Your task to perform on an android device: turn on translation in the chrome app Image 0: 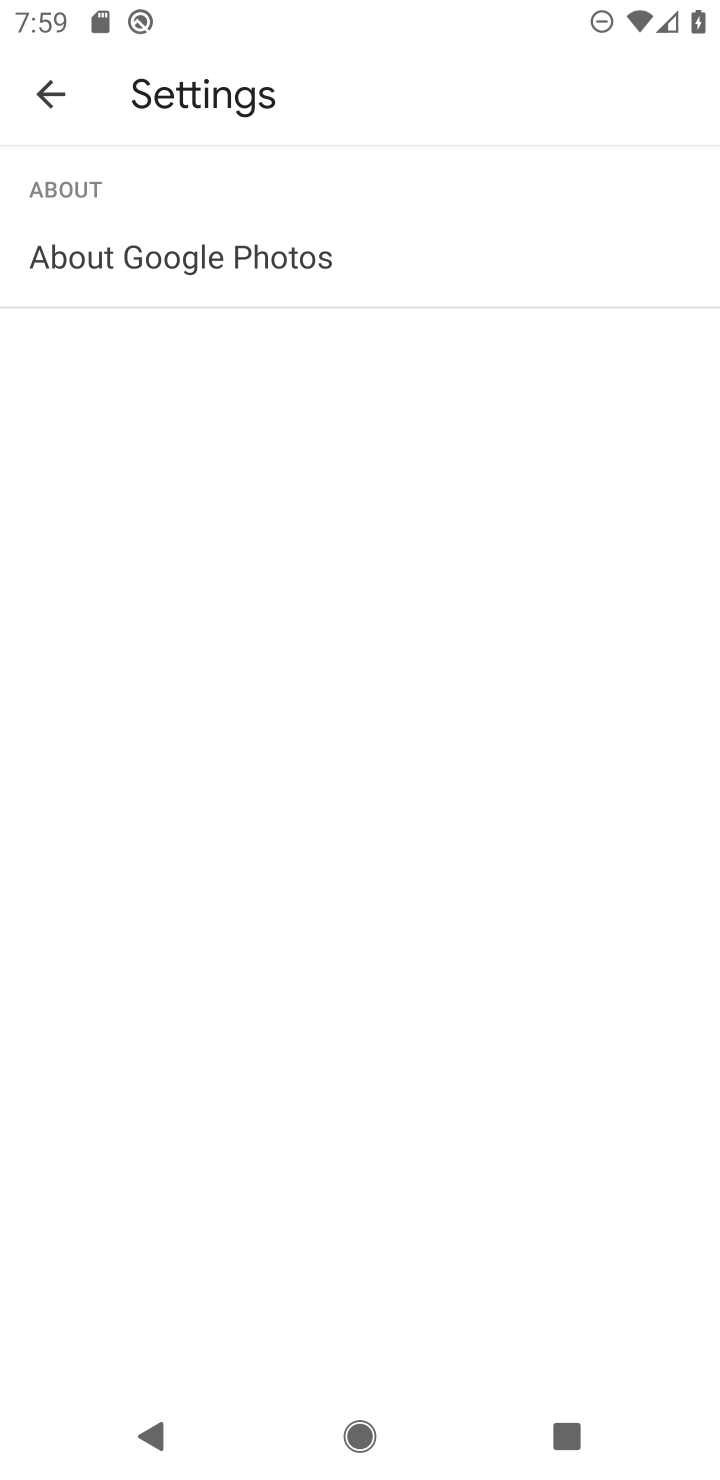
Step 0: press home button
Your task to perform on an android device: turn on translation in the chrome app Image 1: 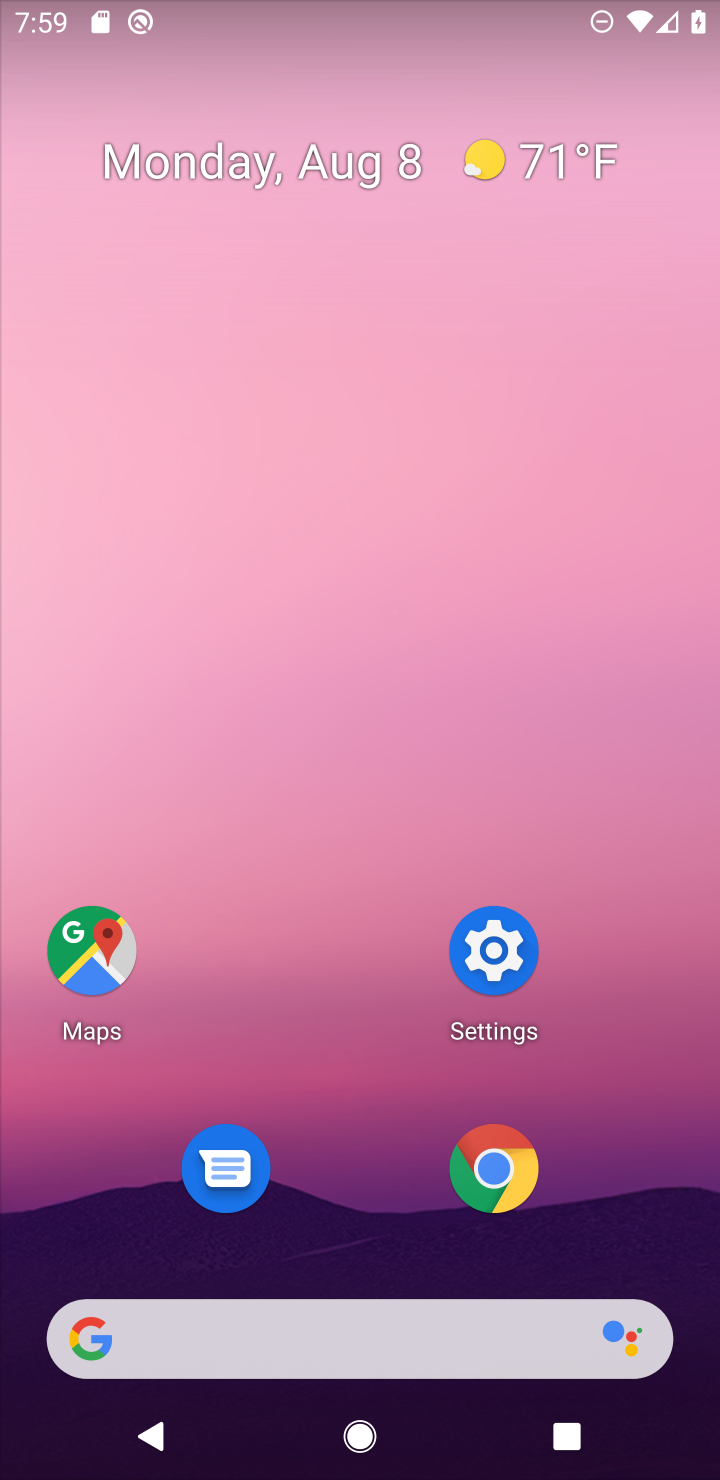
Step 1: click (492, 1165)
Your task to perform on an android device: turn on translation in the chrome app Image 2: 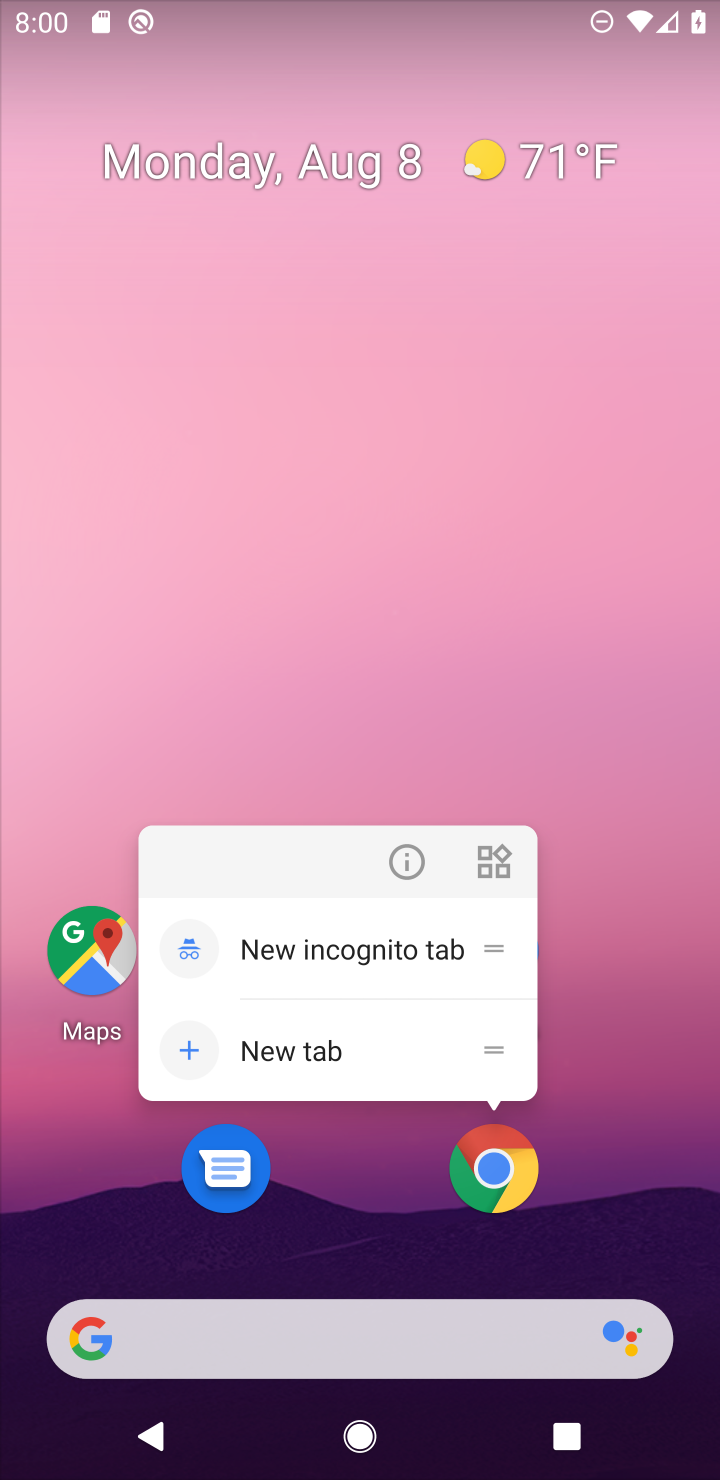
Step 2: click (501, 1189)
Your task to perform on an android device: turn on translation in the chrome app Image 3: 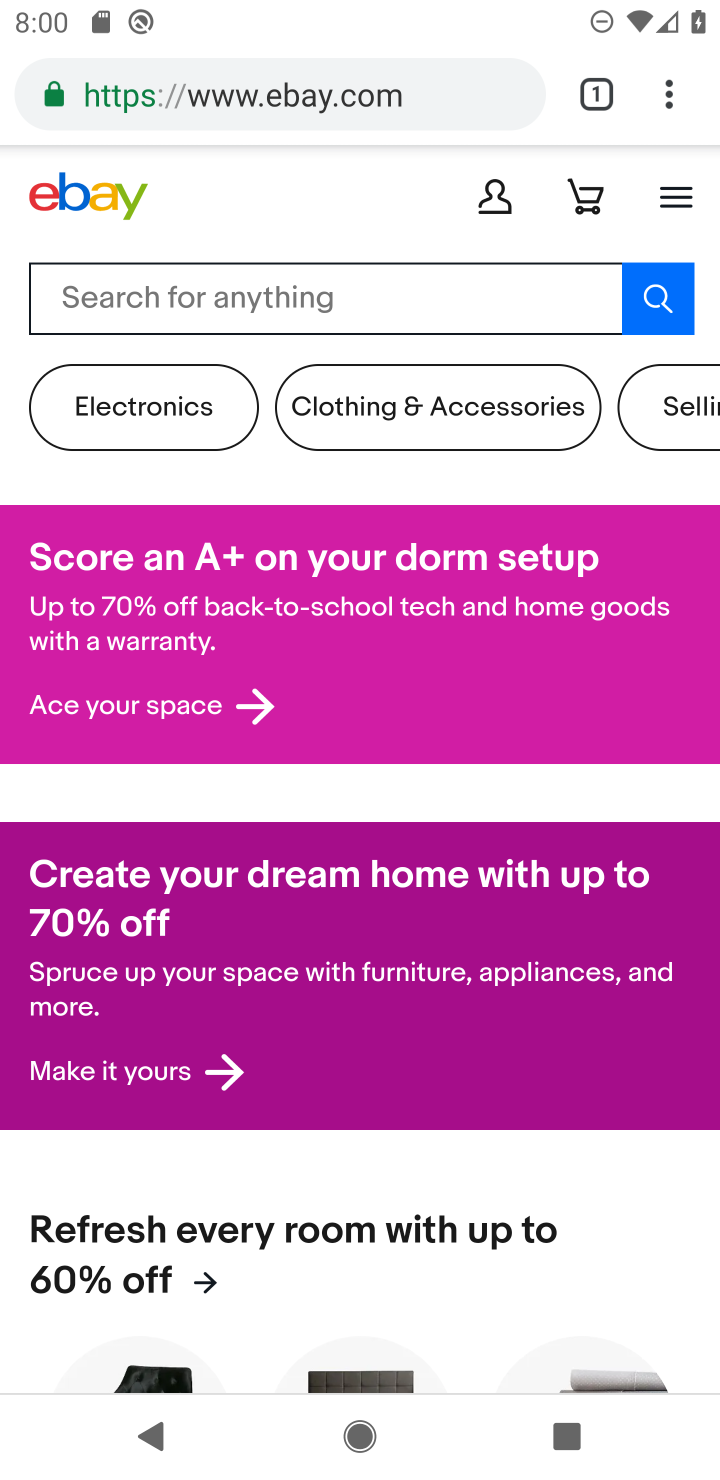
Step 3: drag from (669, 92) to (523, 1066)
Your task to perform on an android device: turn on translation in the chrome app Image 4: 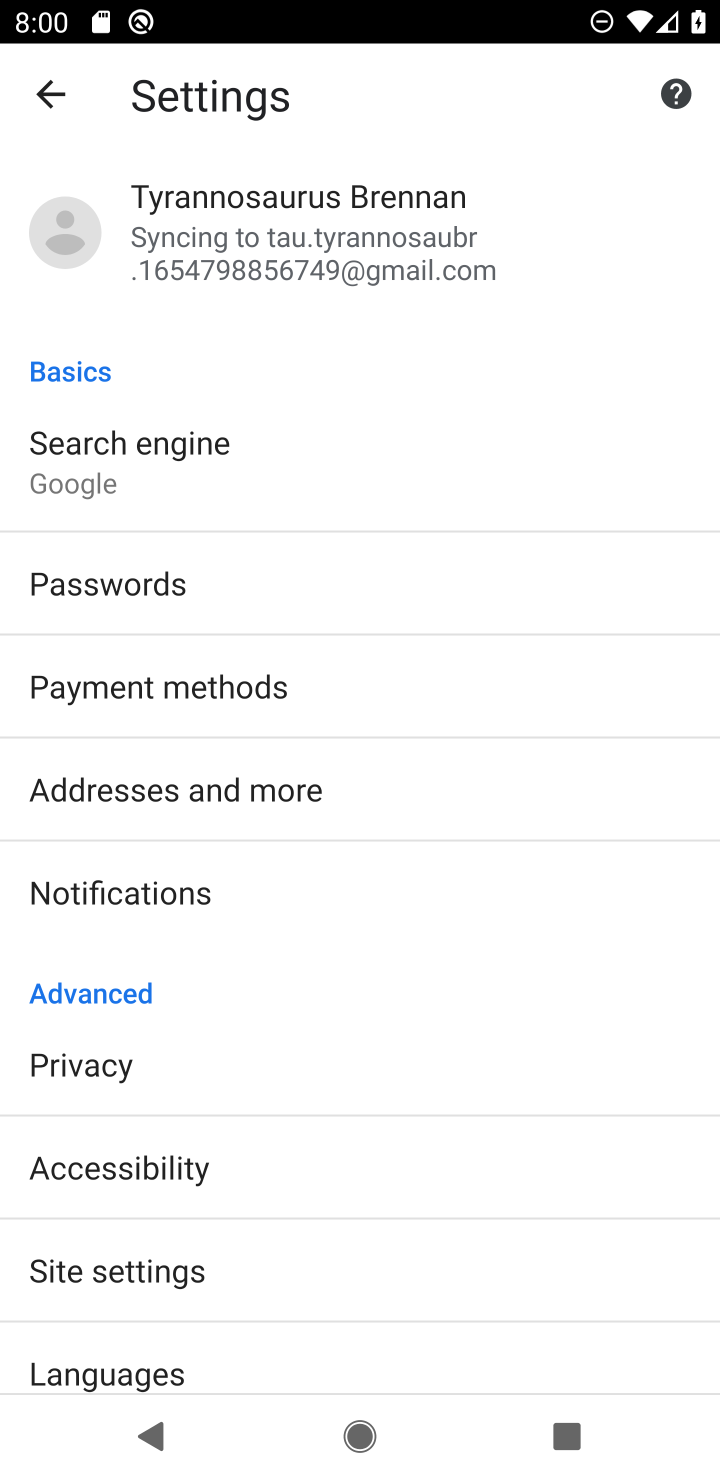
Step 4: drag from (321, 1241) to (571, 394)
Your task to perform on an android device: turn on translation in the chrome app Image 5: 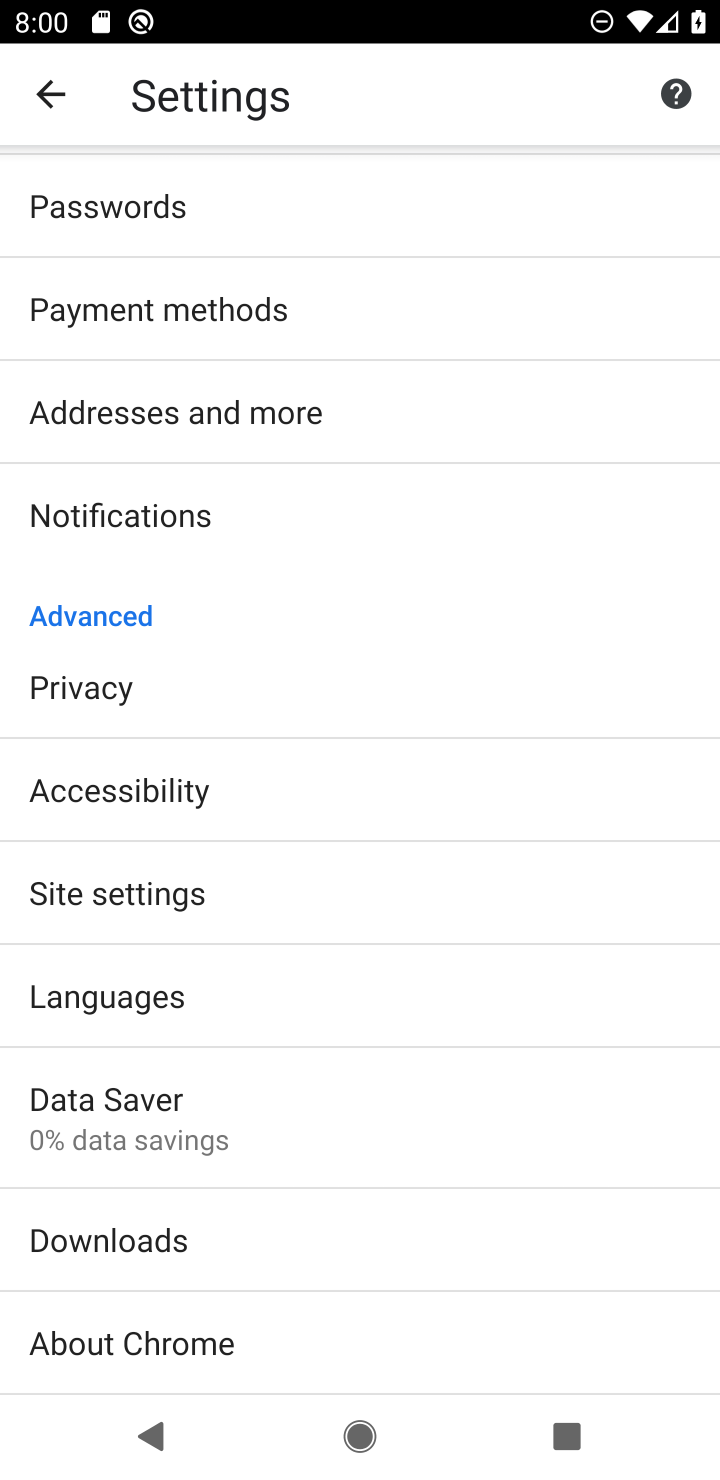
Step 5: click (147, 998)
Your task to perform on an android device: turn on translation in the chrome app Image 6: 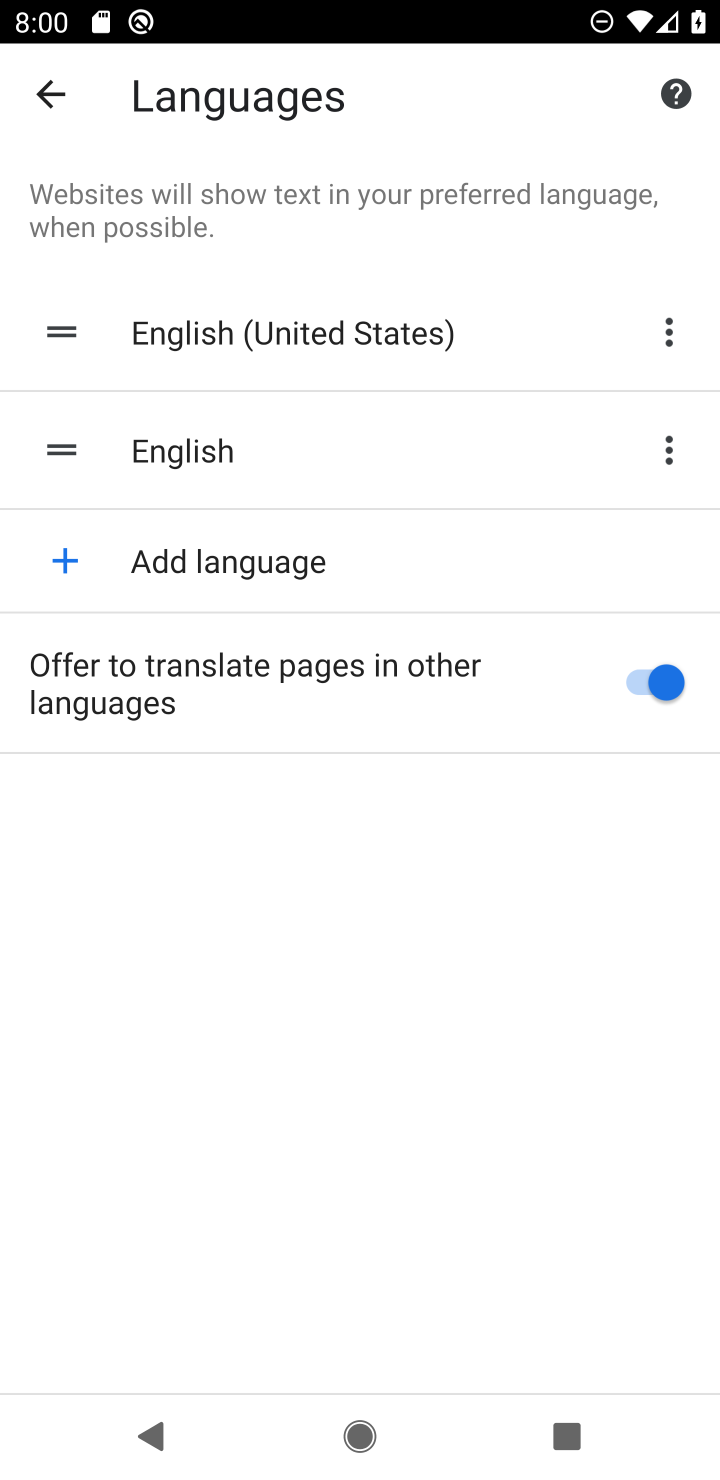
Step 6: task complete